Your task to perform on an android device: Search for "dell xps" on costco, select the first entry, and add it to the cart. Image 0: 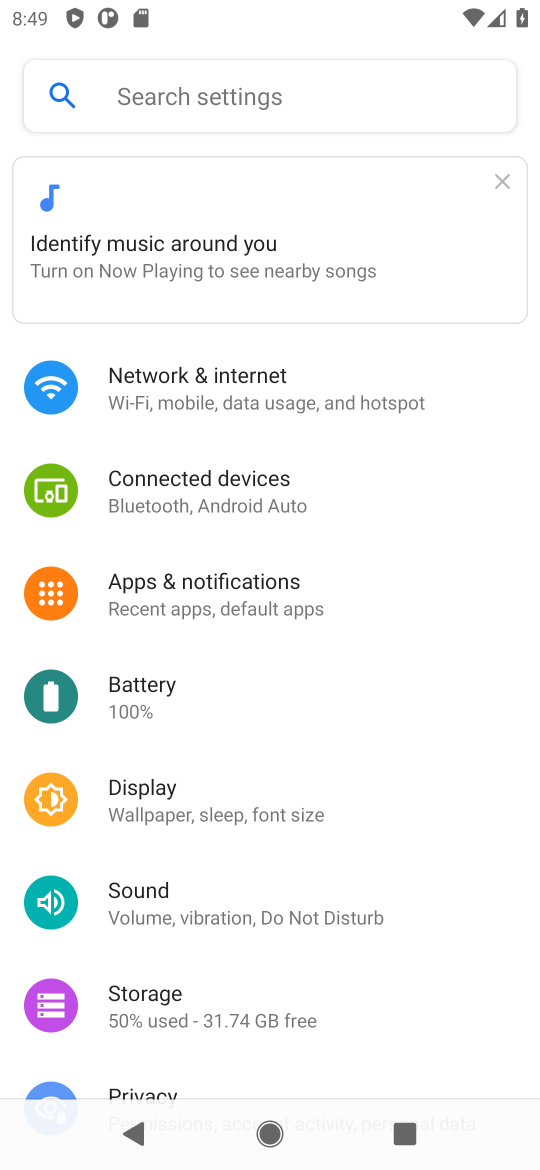
Step 0: press home button
Your task to perform on an android device: Search for "dell xps" on costco, select the first entry, and add it to the cart. Image 1: 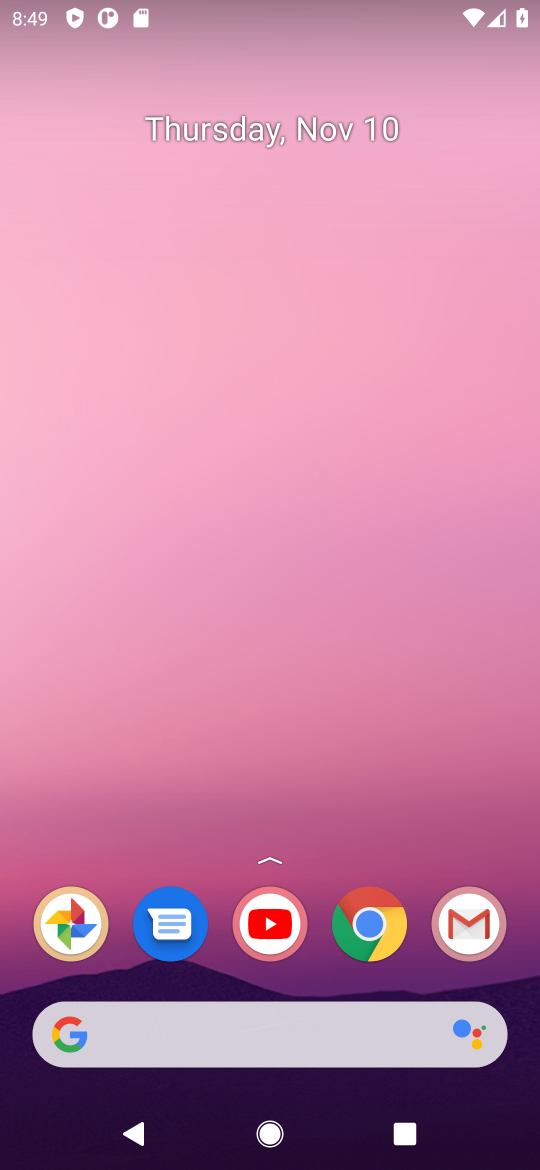
Step 1: click (361, 941)
Your task to perform on an android device: Search for "dell xps" on costco, select the first entry, and add it to the cart. Image 2: 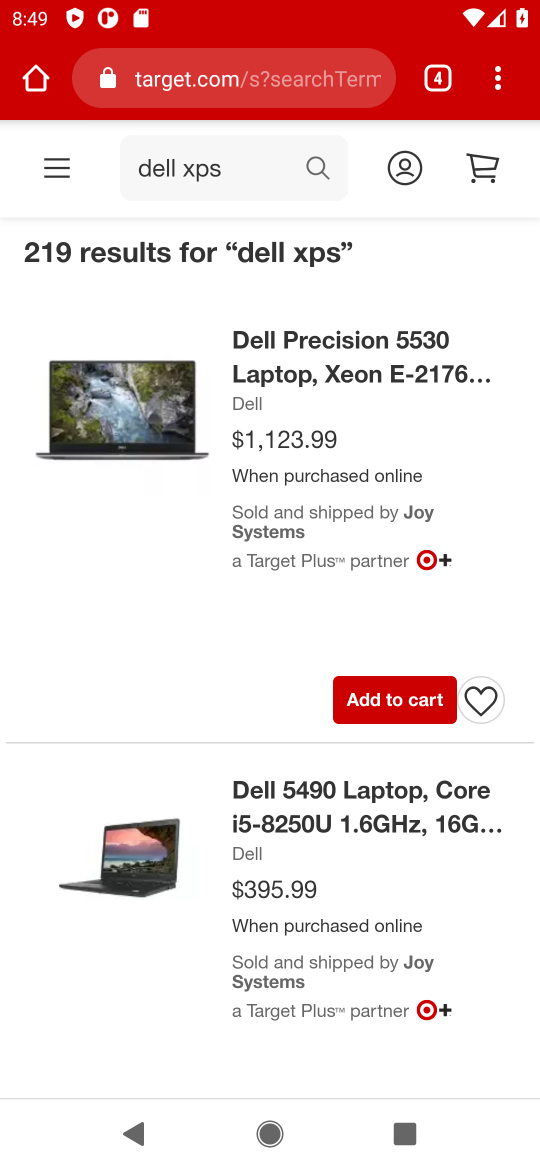
Step 2: click (284, 92)
Your task to perform on an android device: Search for "dell xps" on costco, select the first entry, and add it to the cart. Image 3: 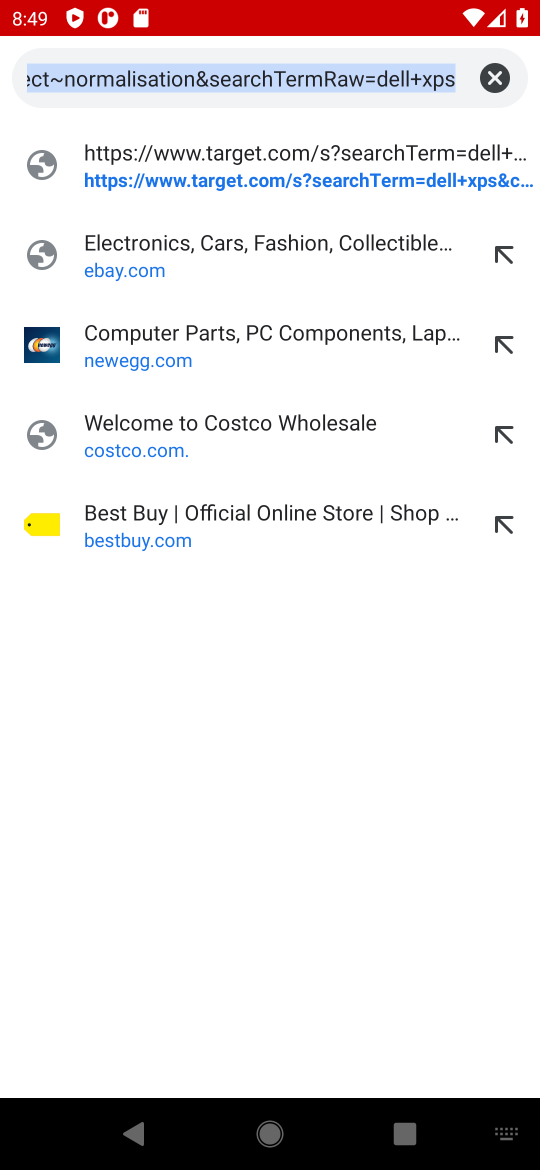
Step 3: click (85, 451)
Your task to perform on an android device: Search for "dell xps" on costco, select the first entry, and add it to the cart. Image 4: 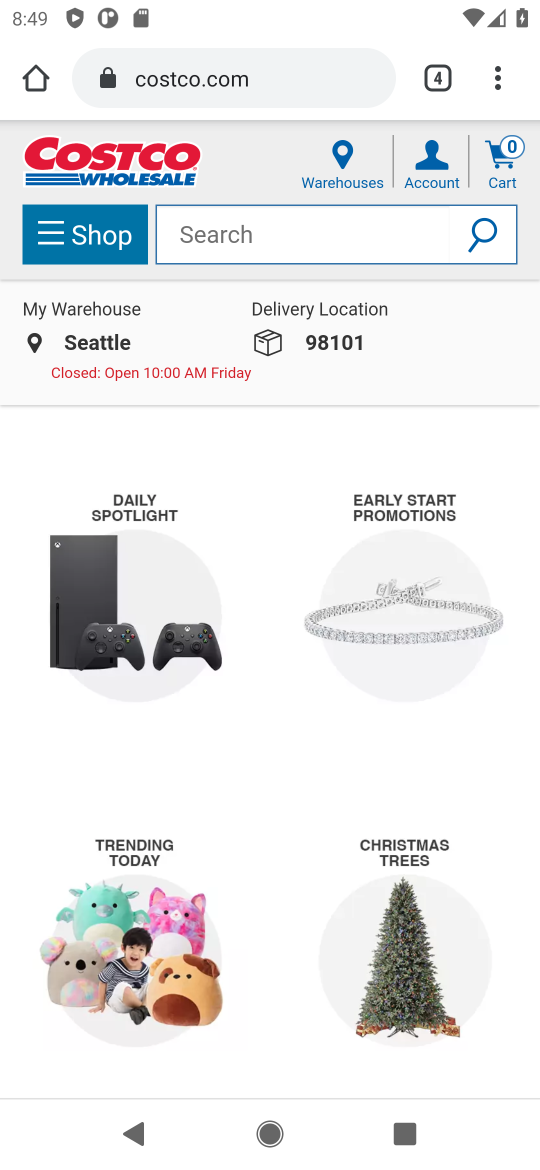
Step 4: click (262, 218)
Your task to perform on an android device: Search for "dell xps" on costco, select the first entry, and add it to the cart. Image 5: 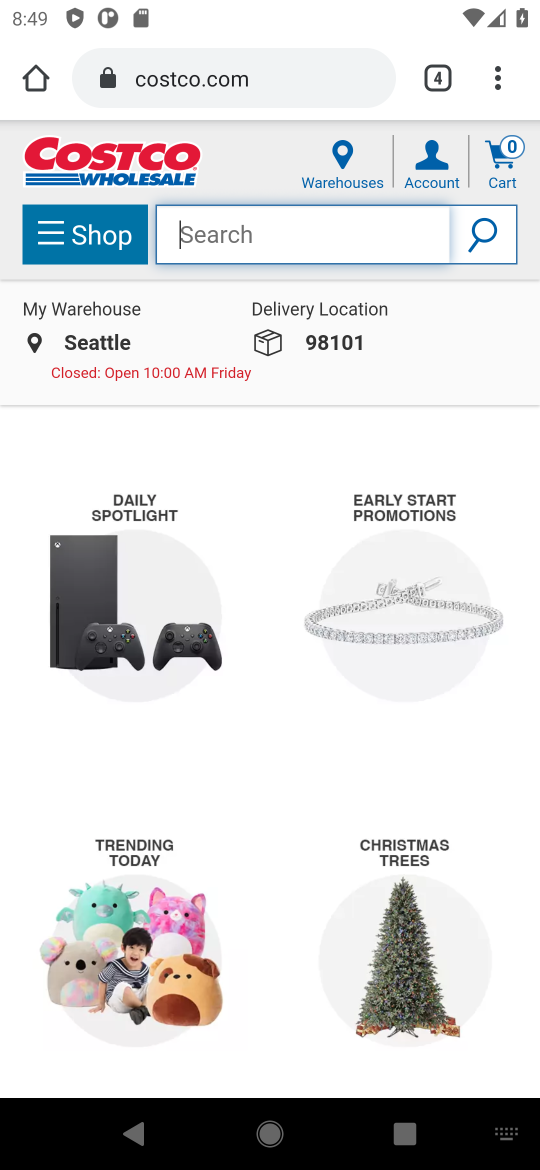
Step 5: type "dell xps"
Your task to perform on an android device: Search for "dell xps" on costco, select the first entry, and add it to the cart. Image 6: 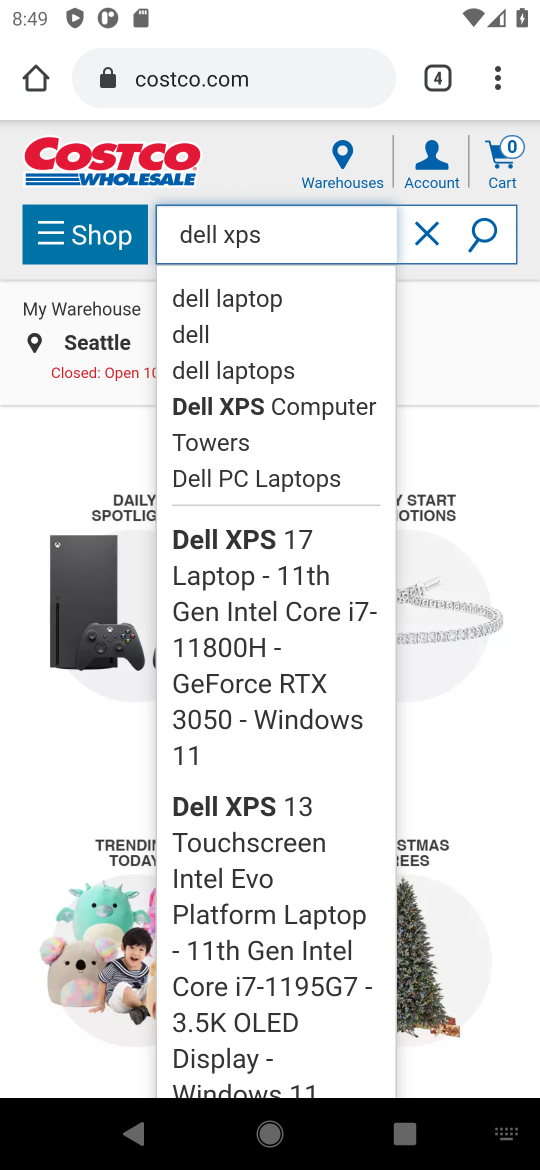
Step 6: click (490, 231)
Your task to perform on an android device: Search for "dell xps" on costco, select the first entry, and add it to the cart. Image 7: 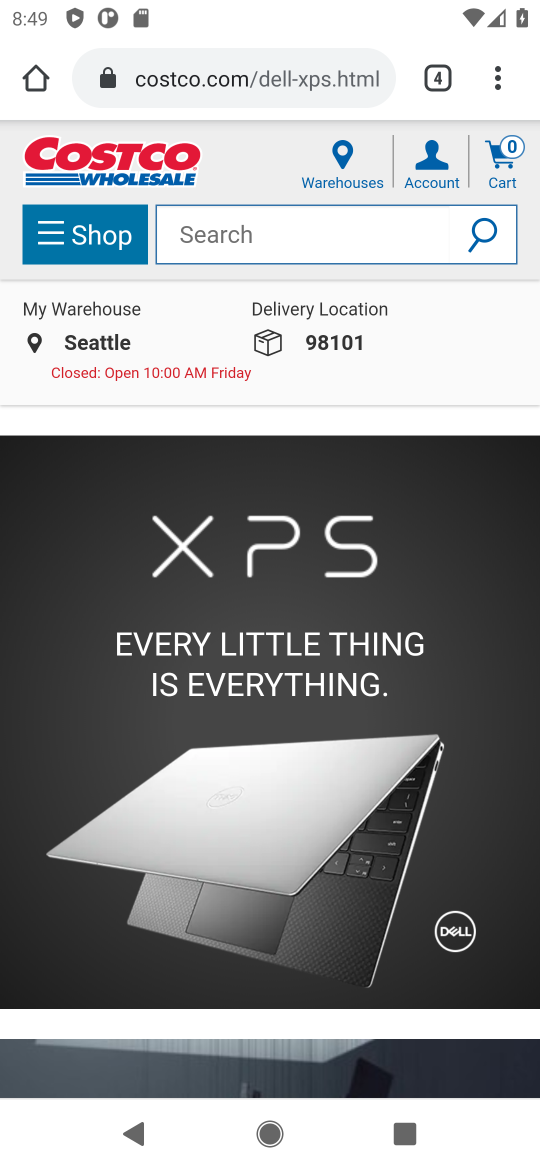
Step 7: task complete